Your task to perform on an android device: Search for vegetarian restaurants on Maps Image 0: 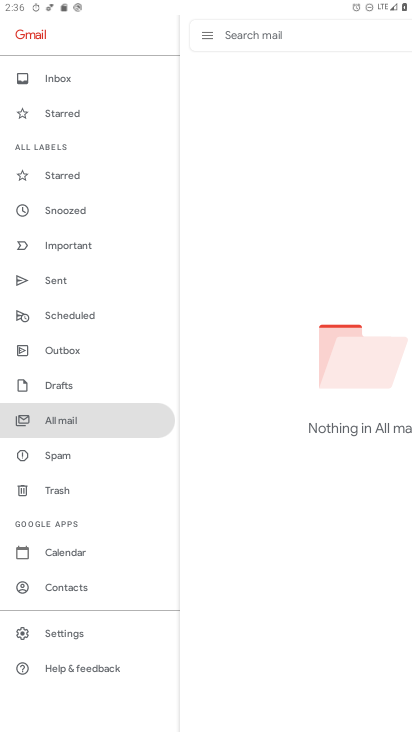
Step 0: press home button
Your task to perform on an android device: Search for vegetarian restaurants on Maps Image 1: 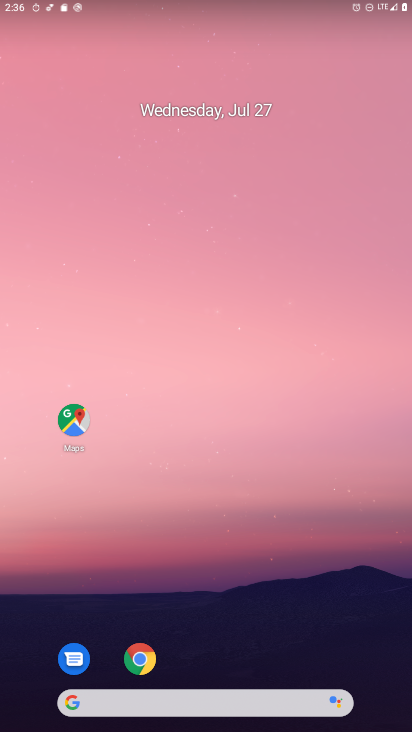
Step 1: drag from (303, 613) to (270, 95)
Your task to perform on an android device: Search for vegetarian restaurants on Maps Image 2: 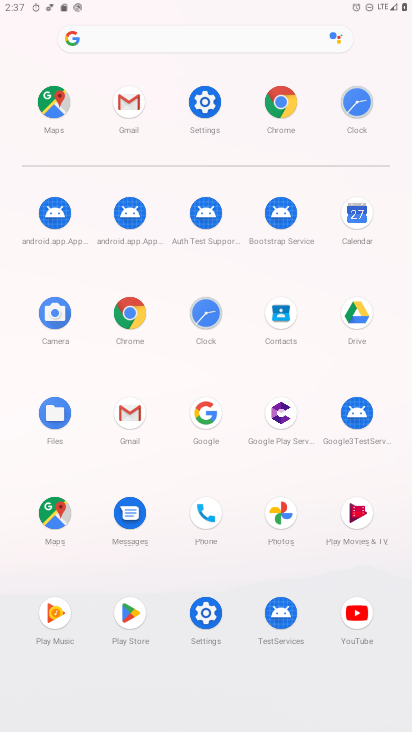
Step 2: click (49, 512)
Your task to perform on an android device: Search for vegetarian restaurants on Maps Image 3: 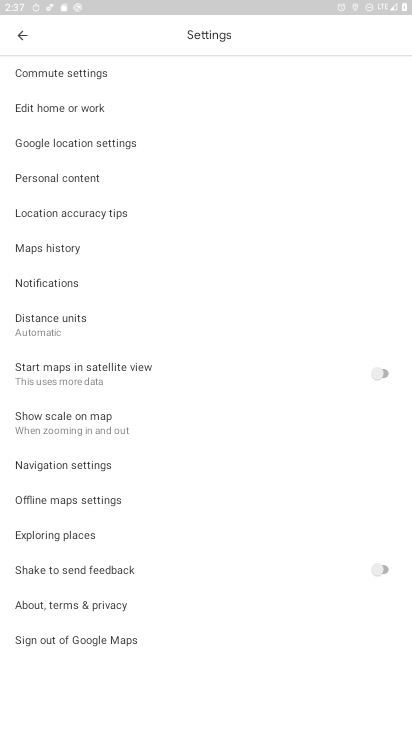
Step 3: press back button
Your task to perform on an android device: Search for vegetarian restaurants on Maps Image 4: 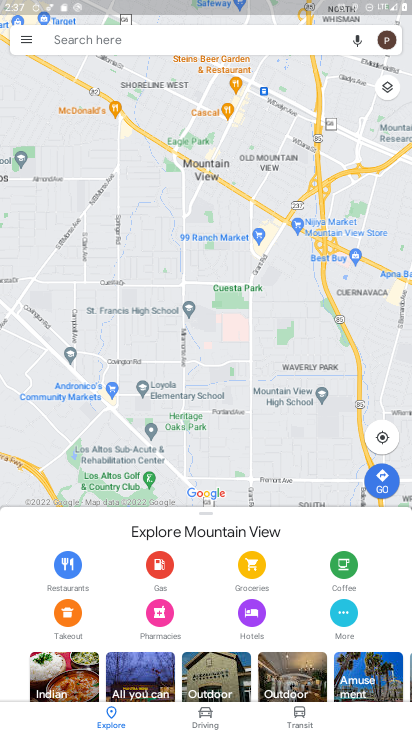
Step 4: click (274, 48)
Your task to perform on an android device: Search for vegetarian restaurants on Maps Image 5: 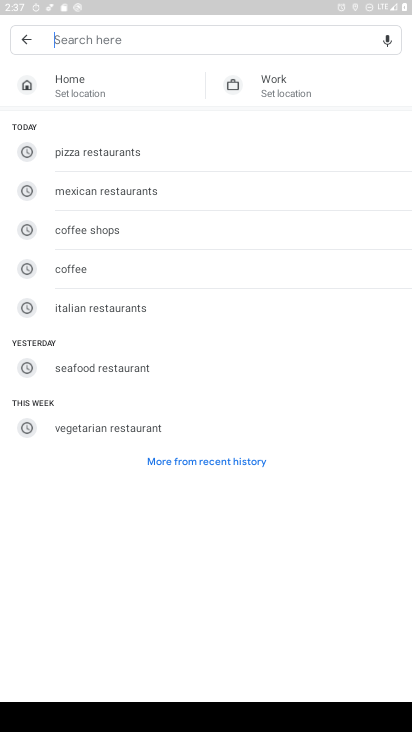
Step 5: type "vegetarian restaurants"
Your task to perform on an android device: Search for vegetarian restaurants on Maps Image 6: 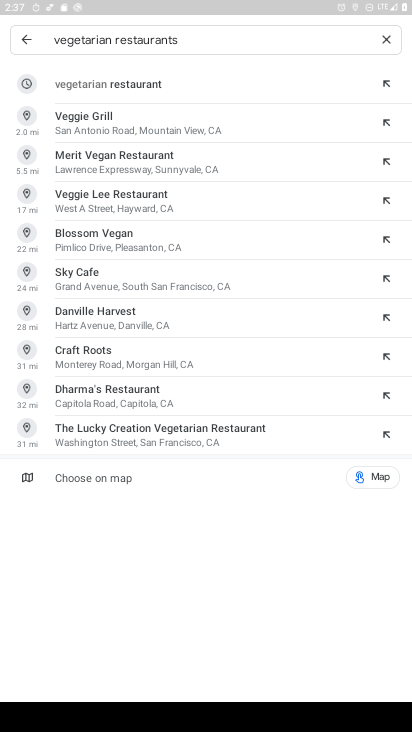
Step 6: press enter
Your task to perform on an android device: Search for vegetarian restaurants on Maps Image 7: 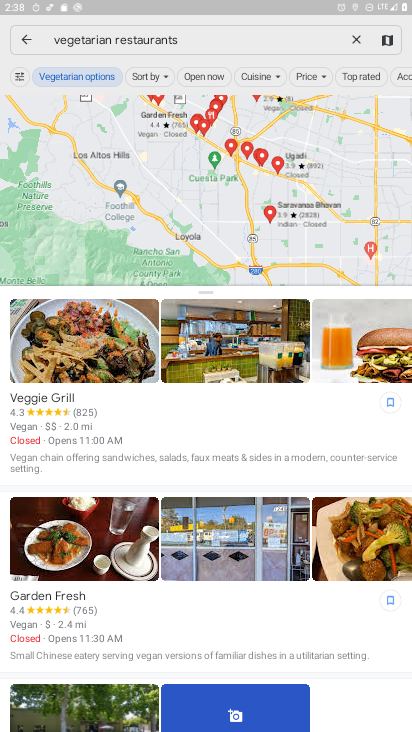
Step 7: task complete